Your task to perform on an android device: toggle notifications settings in the gmail app Image 0: 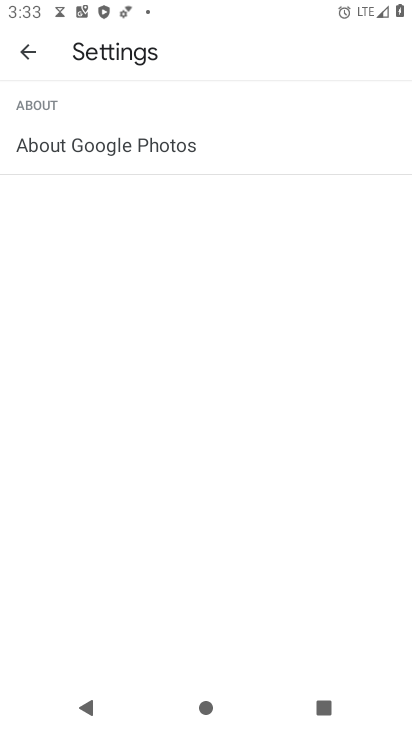
Step 0: press home button
Your task to perform on an android device: toggle notifications settings in the gmail app Image 1: 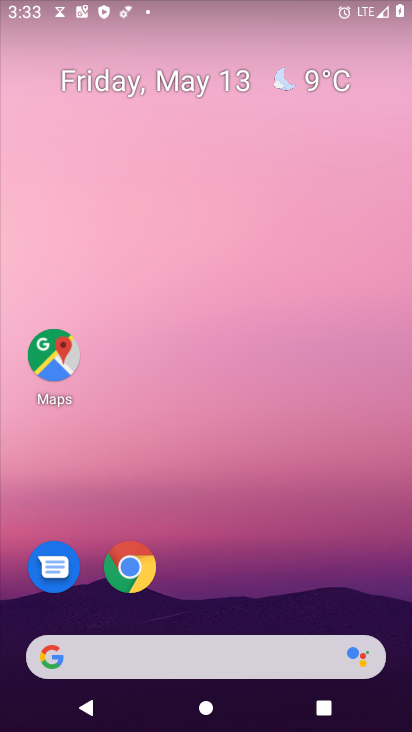
Step 1: drag from (330, 591) to (382, 24)
Your task to perform on an android device: toggle notifications settings in the gmail app Image 2: 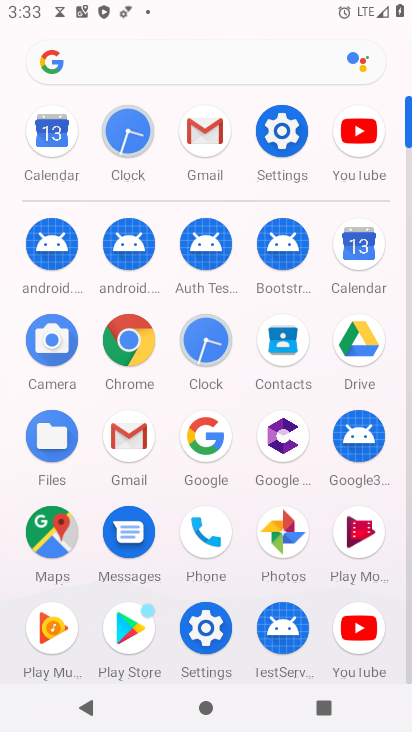
Step 2: click (200, 130)
Your task to perform on an android device: toggle notifications settings in the gmail app Image 3: 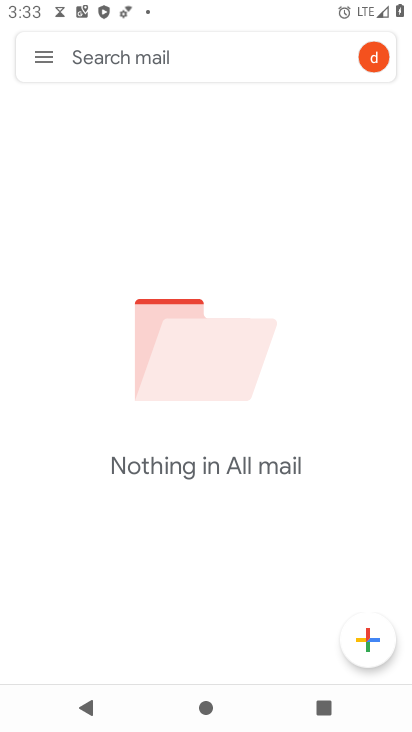
Step 3: click (46, 63)
Your task to perform on an android device: toggle notifications settings in the gmail app Image 4: 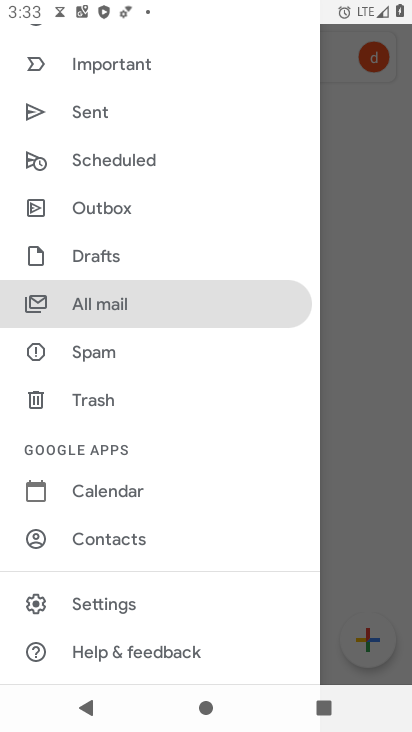
Step 4: click (82, 594)
Your task to perform on an android device: toggle notifications settings in the gmail app Image 5: 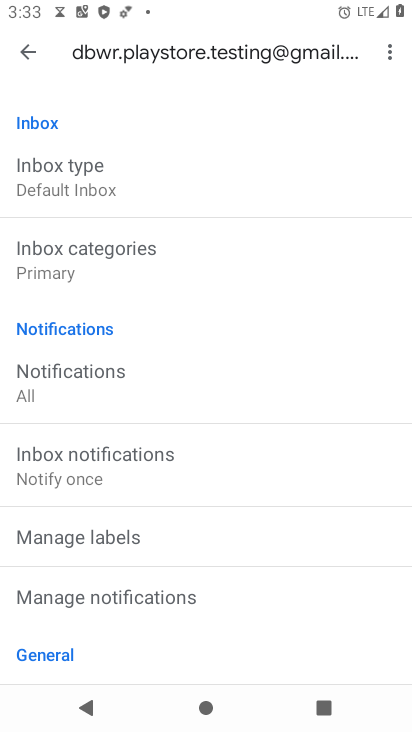
Step 5: click (25, 48)
Your task to perform on an android device: toggle notifications settings in the gmail app Image 6: 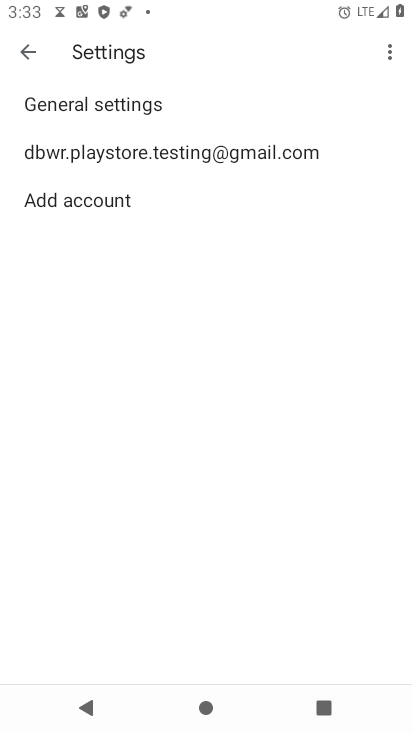
Step 6: click (43, 106)
Your task to perform on an android device: toggle notifications settings in the gmail app Image 7: 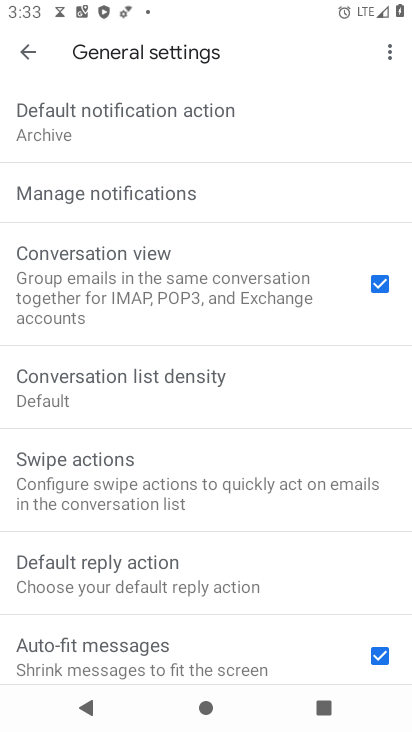
Step 7: click (91, 200)
Your task to perform on an android device: toggle notifications settings in the gmail app Image 8: 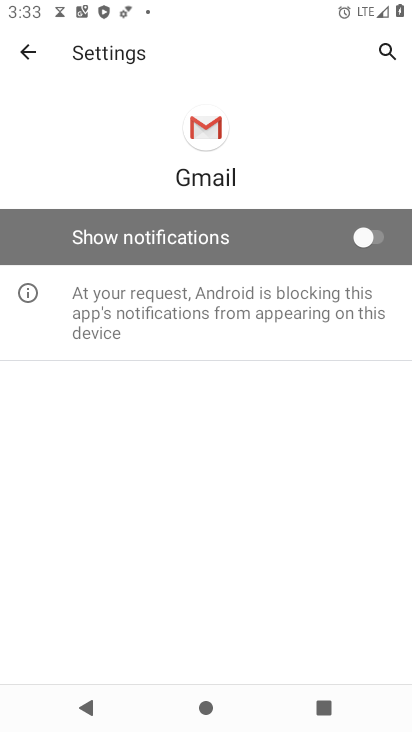
Step 8: click (352, 242)
Your task to perform on an android device: toggle notifications settings in the gmail app Image 9: 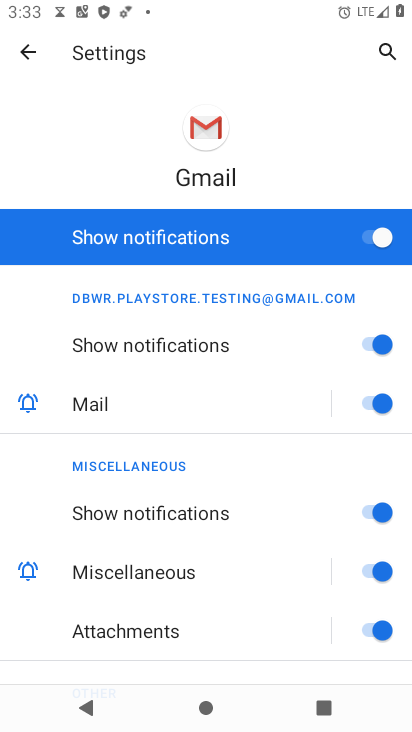
Step 9: task complete